Your task to perform on an android device: open wifi settings Image 0: 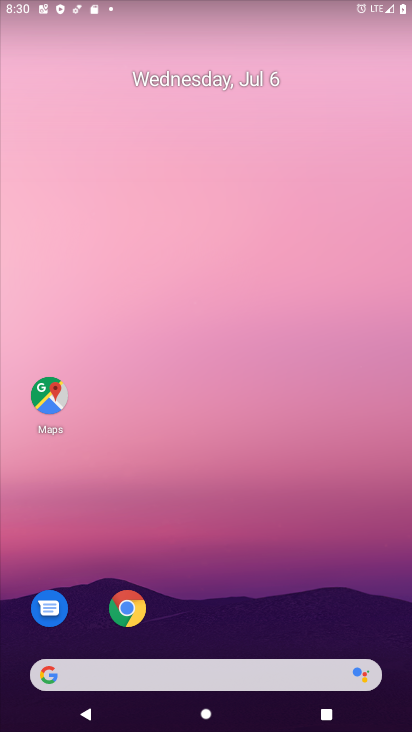
Step 0: drag from (396, 657) to (333, 188)
Your task to perform on an android device: open wifi settings Image 1: 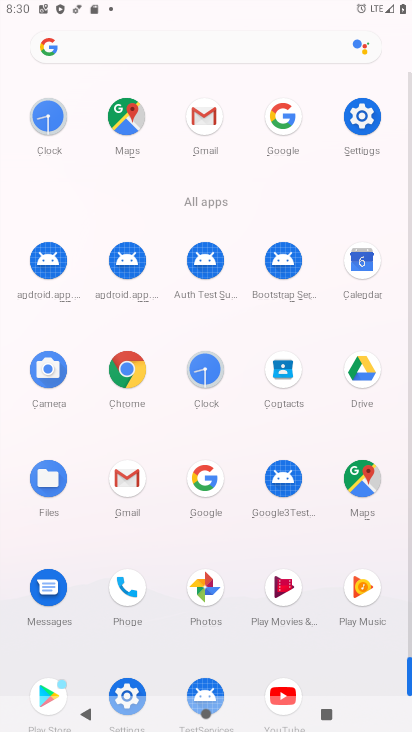
Step 1: click (357, 135)
Your task to perform on an android device: open wifi settings Image 2: 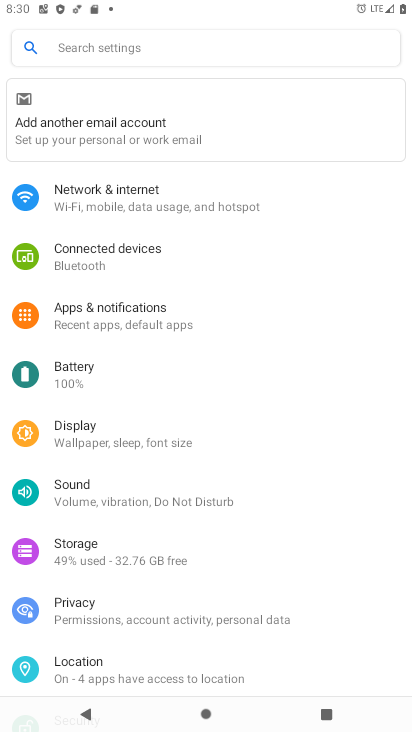
Step 2: click (132, 200)
Your task to perform on an android device: open wifi settings Image 3: 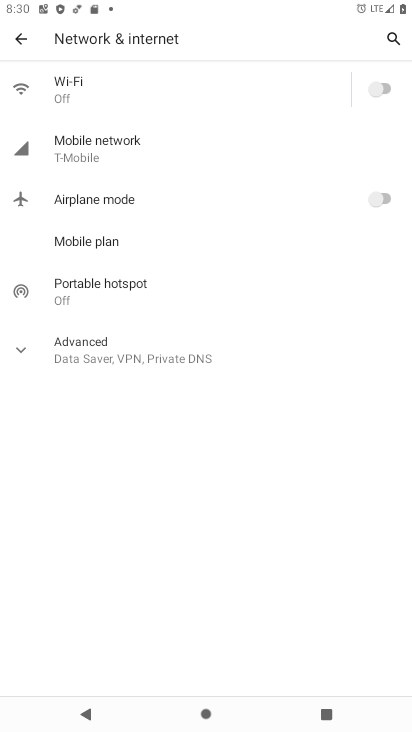
Step 3: click (155, 85)
Your task to perform on an android device: open wifi settings Image 4: 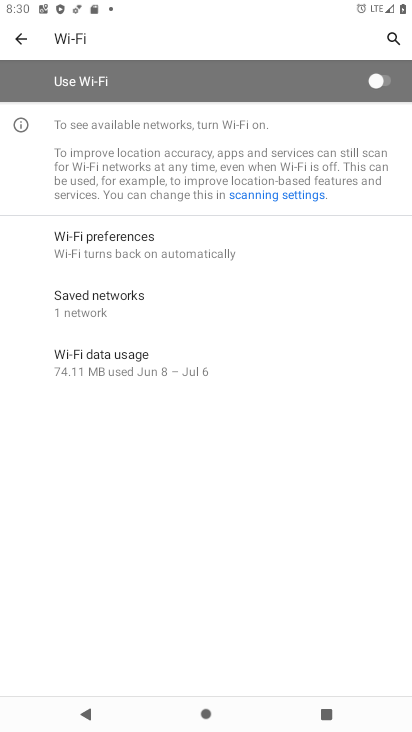
Step 4: task complete